Your task to perform on an android device: Open Wikipedia Image 0: 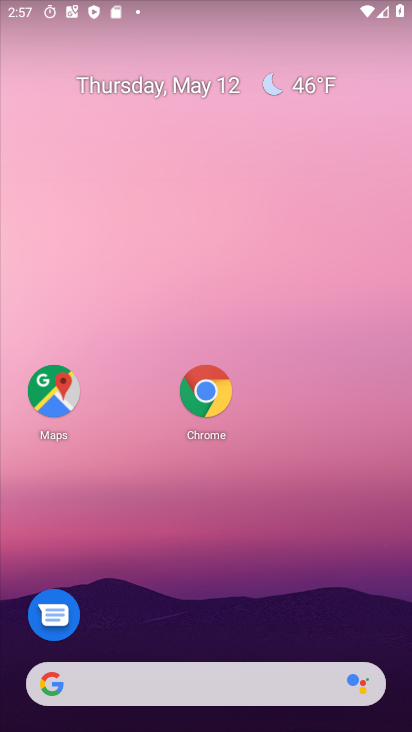
Step 0: click (209, 394)
Your task to perform on an android device: Open Wikipedia Image 1: 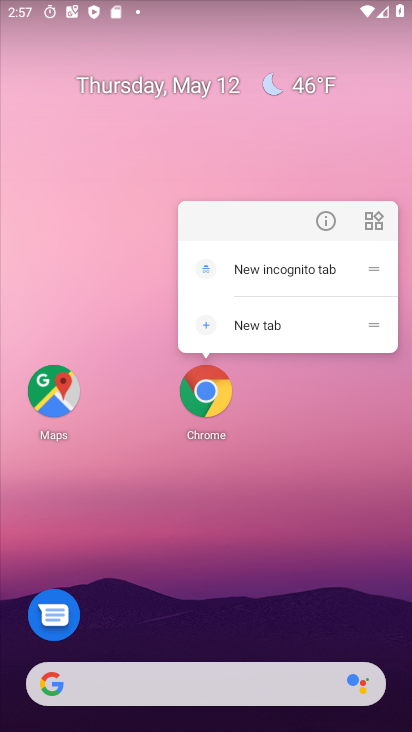
Step 1: click (211, 391)
Your task to perform on an android device: Open Wikipedia Image 2: 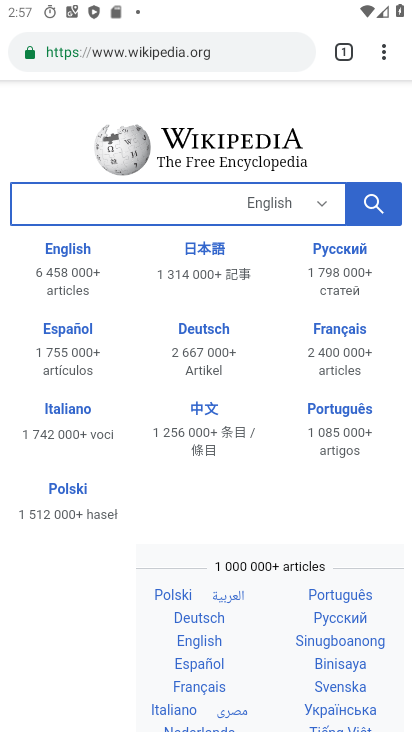
Step 2: task complete